Your task to perform on an android device: Go to Yahoo.com Image 0: 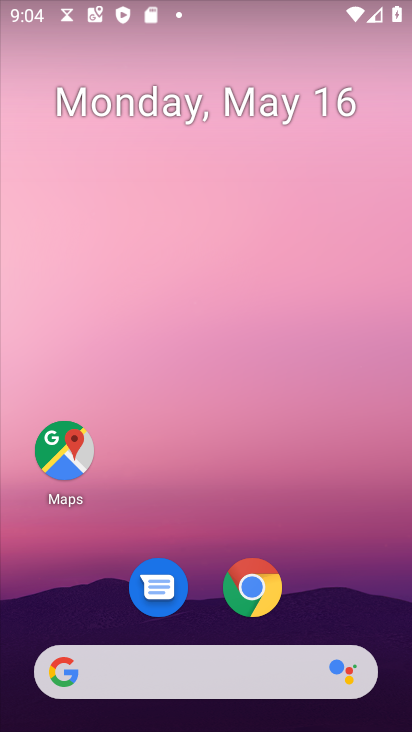
Step 0: click (255, 586)
Your task to perform on an android device: Go to Yahoo.com Image 1: 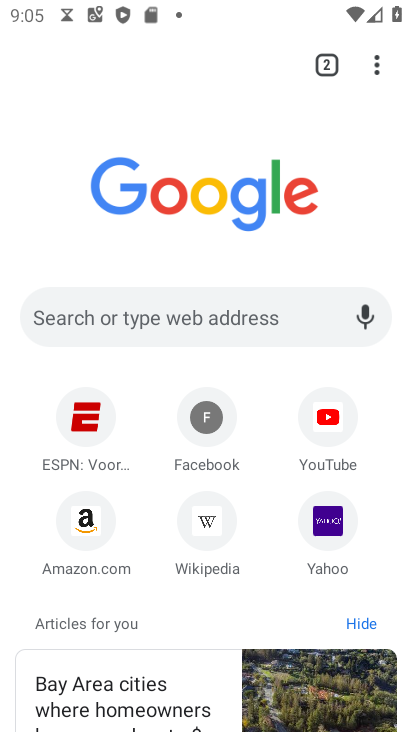
Step 1: click (330, 529)
Your task to perform on an android device: Go to Yahoo.com Image 2: 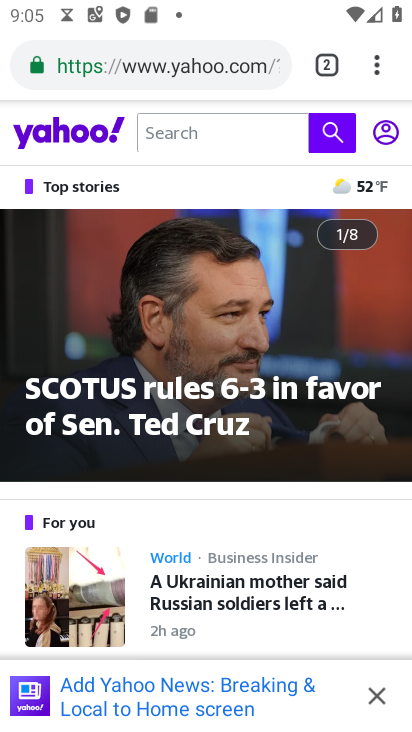
Step 2: task complete